Your task to perform on an android device: set default search engine in the chrome app Image 0: 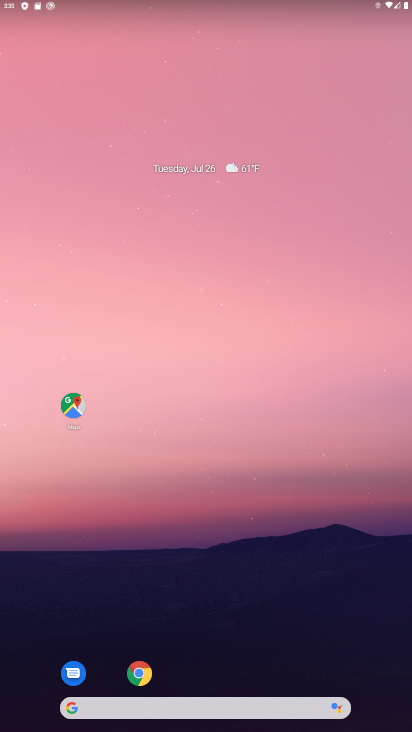
Step 0: press home button
Your task to perform on an android device: set default search engine in the chrome app Image 1: 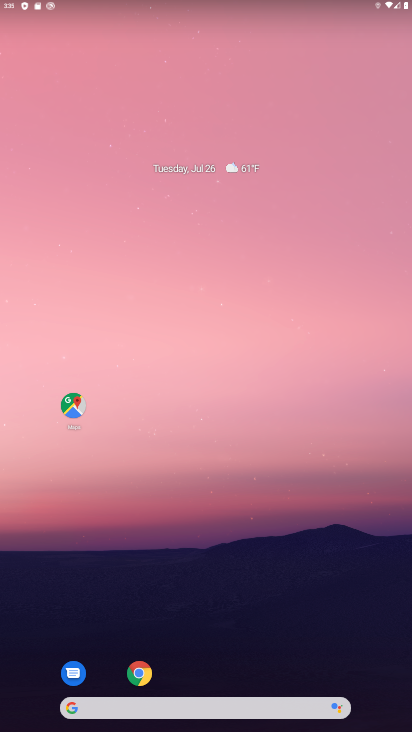
Step 1: click (138, 669)
Your task to perform on an android device: set default search engine in the chrome app Image 2: 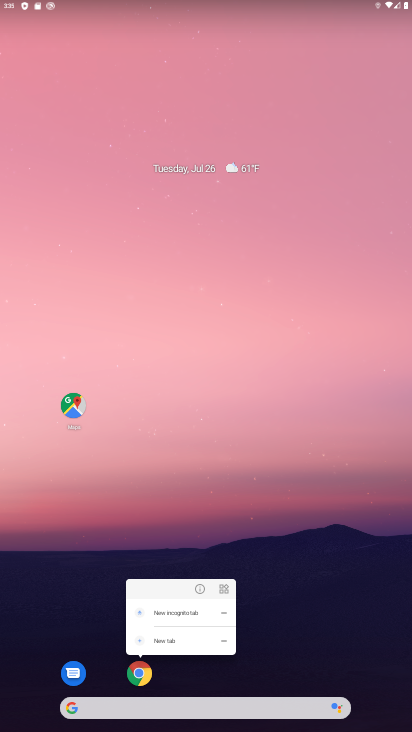
Step 2: click (137, 669)
Your task to perform on an android device: set default search engine in the chrome app Image 3: 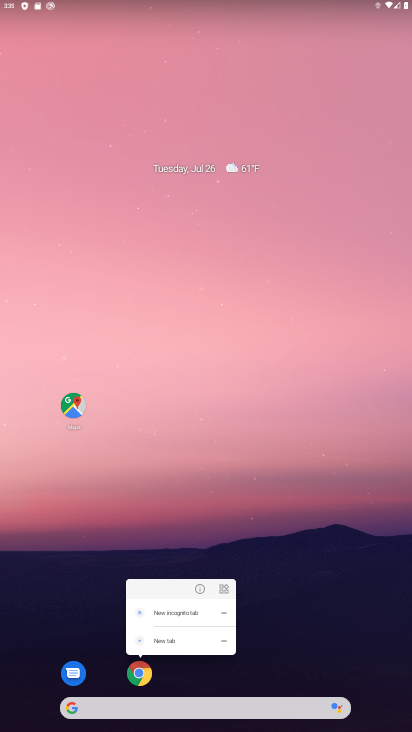
Step 3: click (139, 666)
Your task to perform on an android device: set default search engine in the chrome app Image 4: 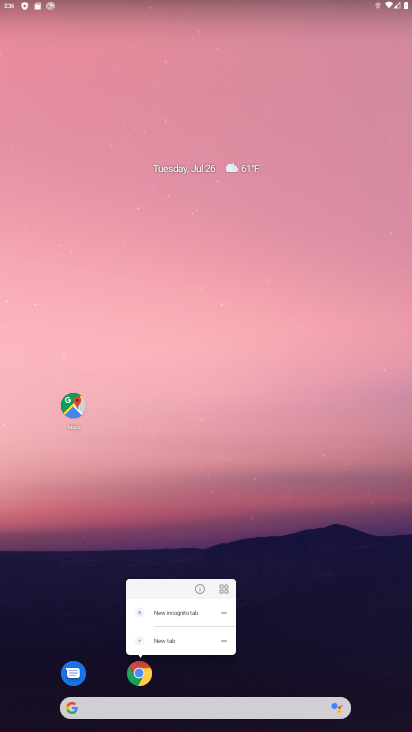
Step 4: click (138, 667)
Your task to perform on an android device: set default search engine in the chrome app Image 5: 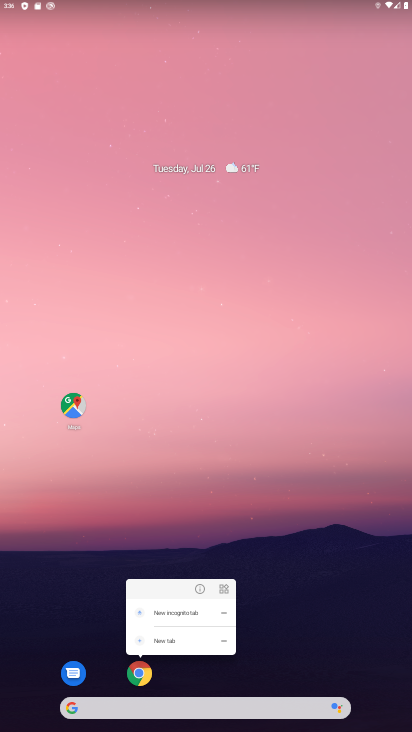
Step 5: click (135, 673)
Your task to perform on an android device: set default search engine in the chrome app Image 6: 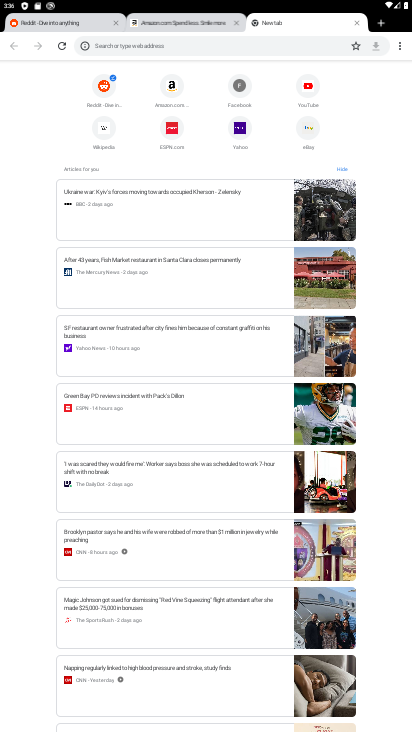
Step 6: click (399, 42)
Your task to perform on an android device: set default search engine in the chrome app Image 7: 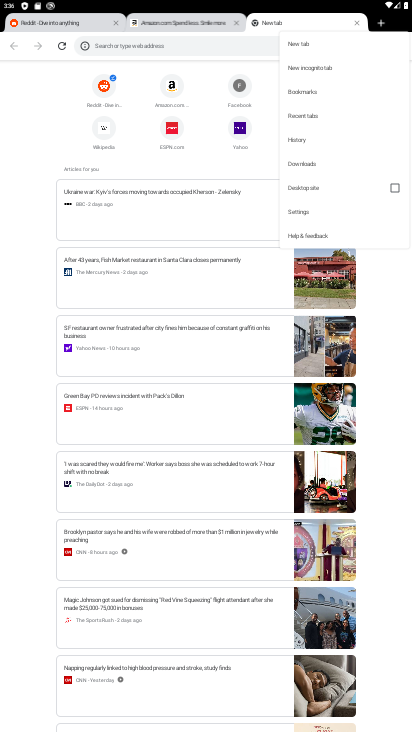
Step 7: click (313, 213)
Your task to perform on an android device: set default search engine in the chrome app Image 8: 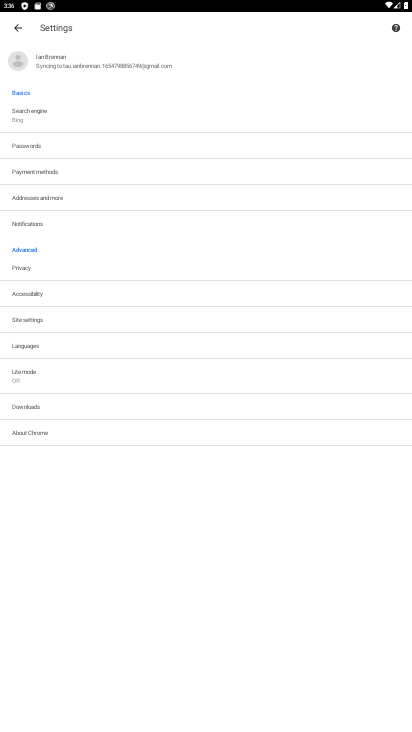
Step 8: click (86, 114)
Your task to perform on an android device: set default search engine in the chrome app Image 9: 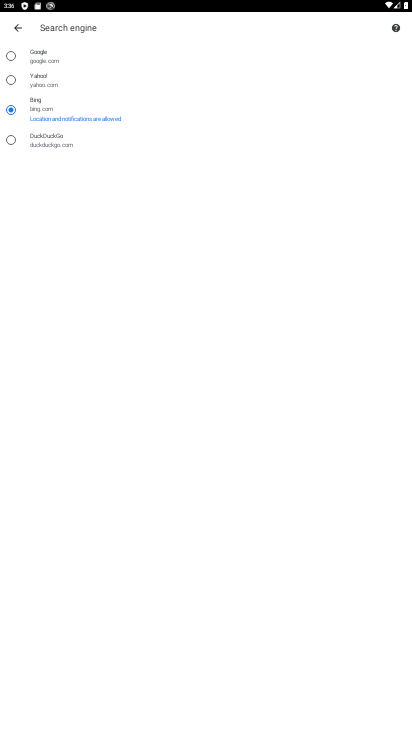
Step 9: click (7, 54)
Your task to perform on an android device: set default search engine in the chrome app Image 10: 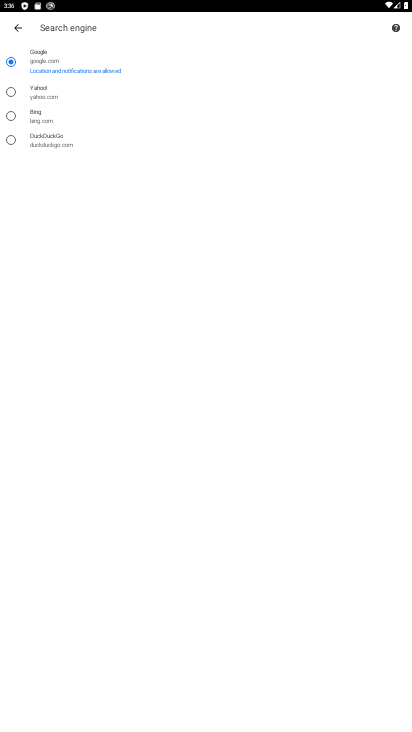
Step 10: task complete